Your task to perform on an android device: Do I have any events this weekend? Image 0: 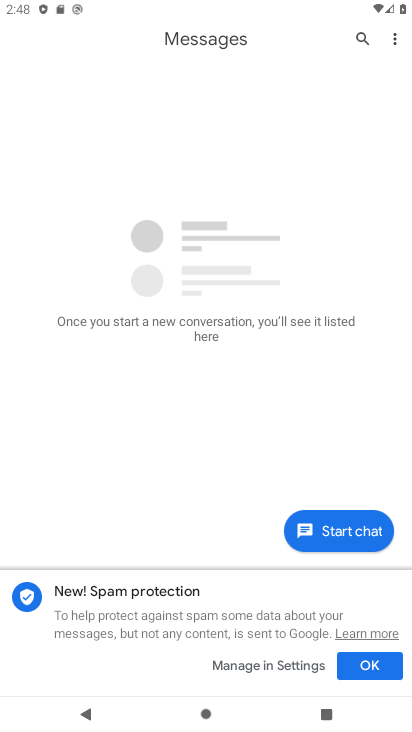
Step 0: press home button
Your task to perform on an android device: Do I have any events this weekend? Image 1: 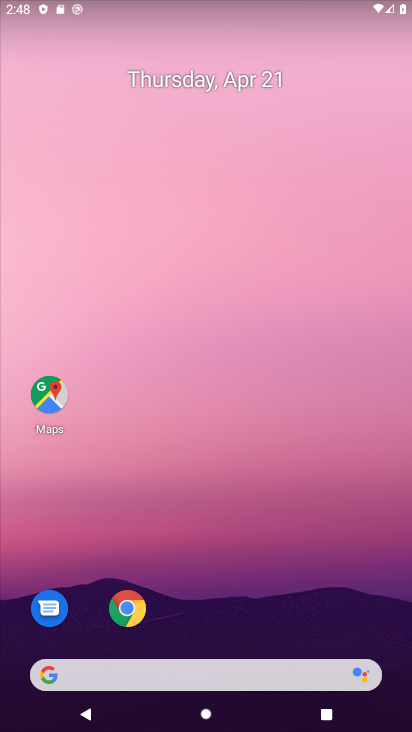
Step 1: drag from (208, 615) to (261, 108)
Your task to perform on an android device: Do I have any events this weekend? Image 2: 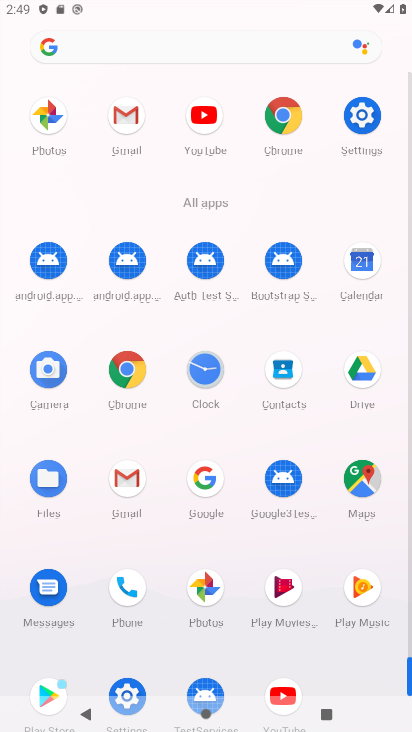
Step 2: click (357, 257)
Your task to perform on an android device: Do I have any events this weekend? Image 3: 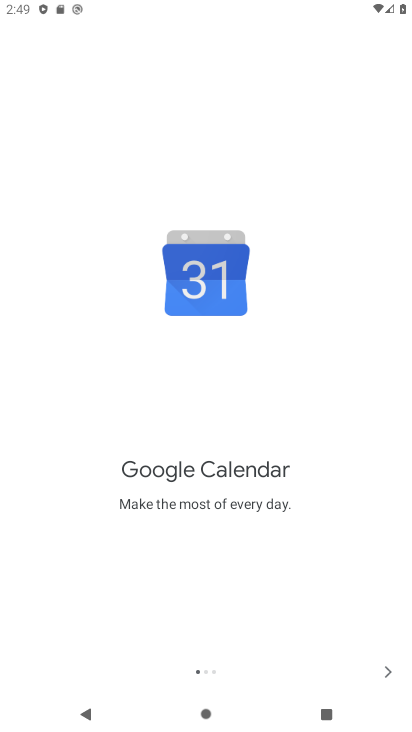
Step 3: click (388, 674)
Your task to perform on an android device: Do I have any events this weekend? Image 4: 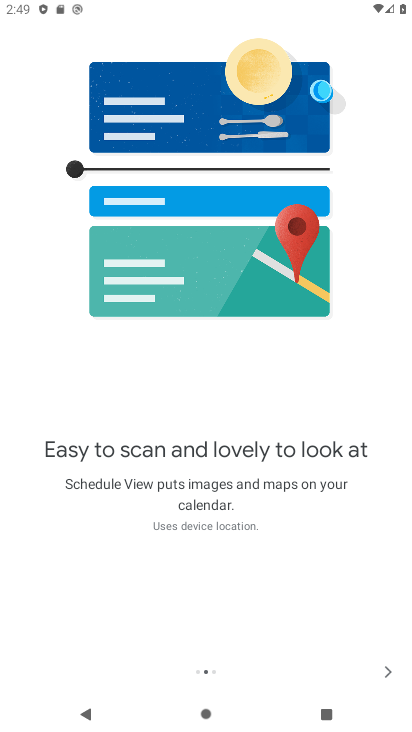
Step 4: click (388, 674)
Your task to perform on an android device: Do I have any events this weekend? Image 5: 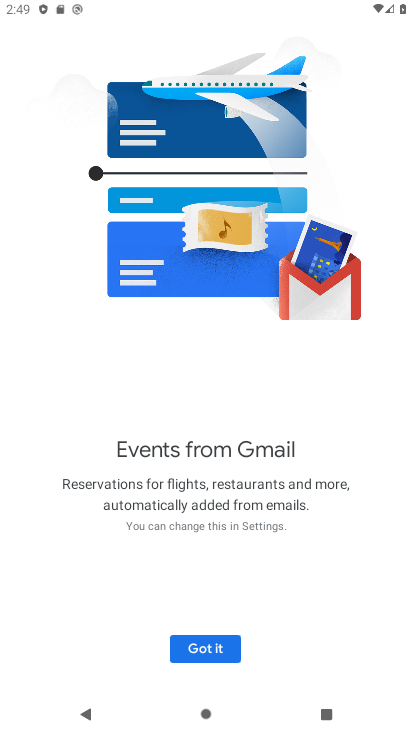
Step 5: click (201, 657)
Your task to perform on an android device: Do I have any events this weekend? Image 6: 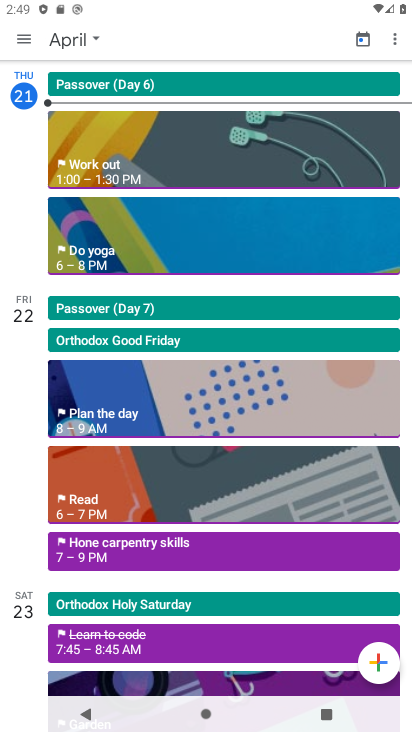
Step 6: click (76, 34)
Your task to perform on an android device: Do I have any events this weekend? Image 7: 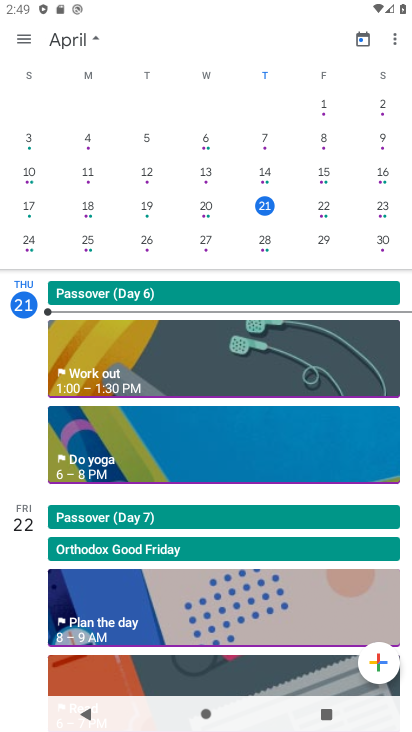
Step 7: click (378, 205)
Your task to perform on an android device: Do I have any events this weekend? Image 8: 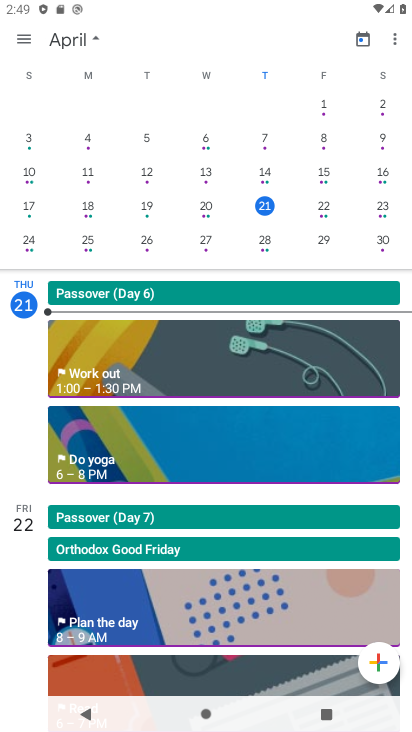
Step 8: click (380, 208)
Your task to perform on an android device: Do I have any events this weekend? Image 9: 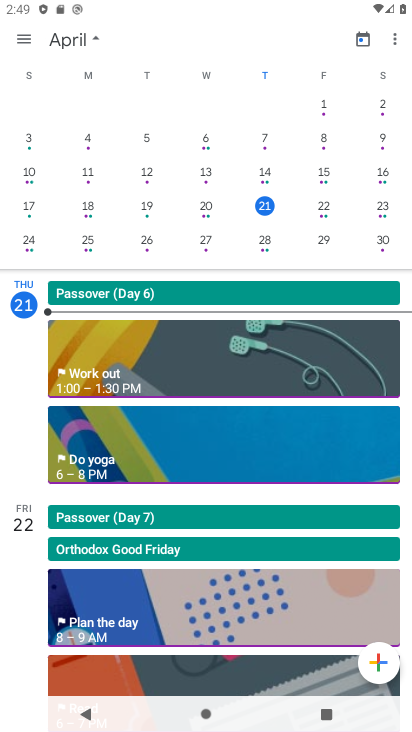
Step 9: click (384, 213)
Your task to perform on an android device: Do I have any events this weekend? Image 10: 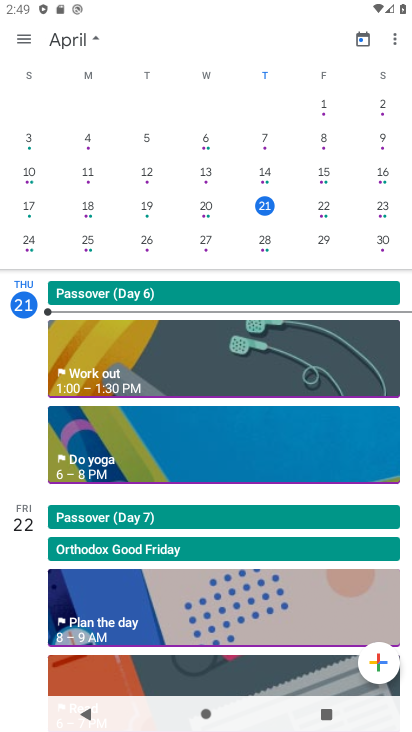
Step 10: click (384, 213)
Your task to perform on an android device: Do I have any events this weekend? Image 11: 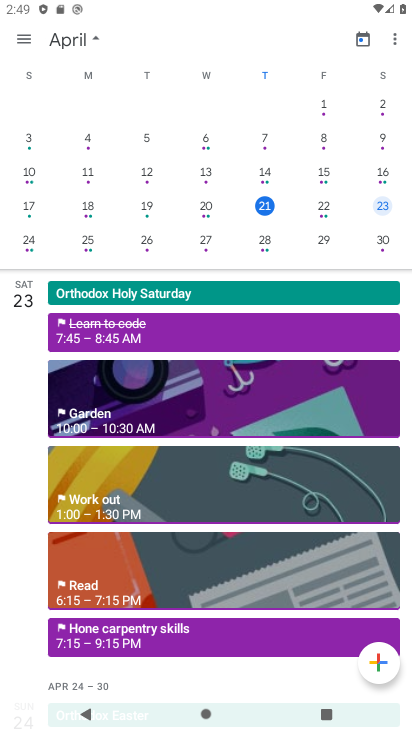
Step 11: click (388, 214)
Your task to perform on an android device: Do I have any events this weekend? Image 12: 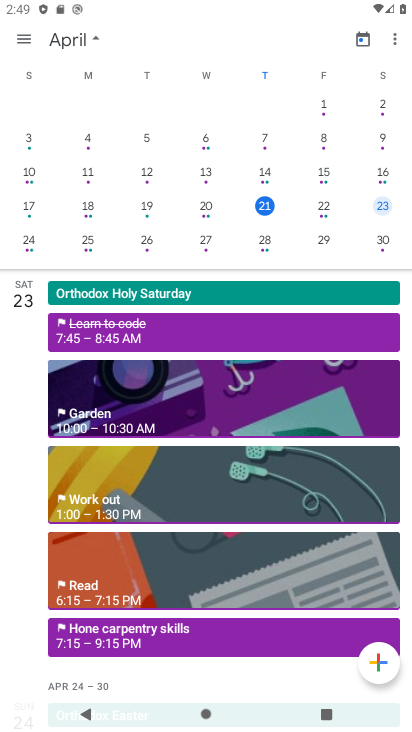
Step 12: click (30, 241)
Your task to perform on an android device: Do I have any events this weekend? Image 13: 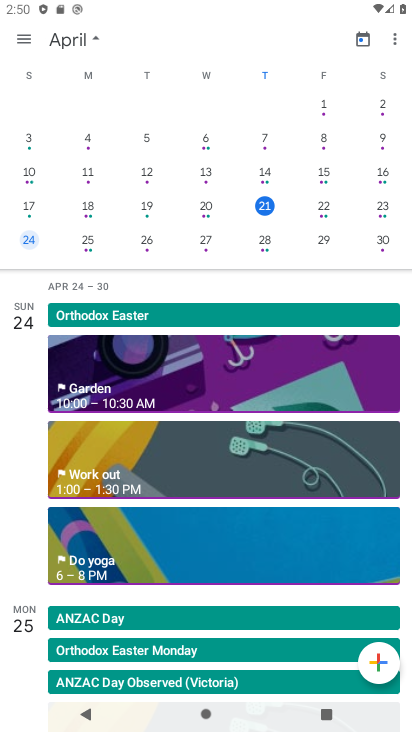
Step 13: task complete